Your task to perform on an android device: turn off translation in the chrome app Image 0: 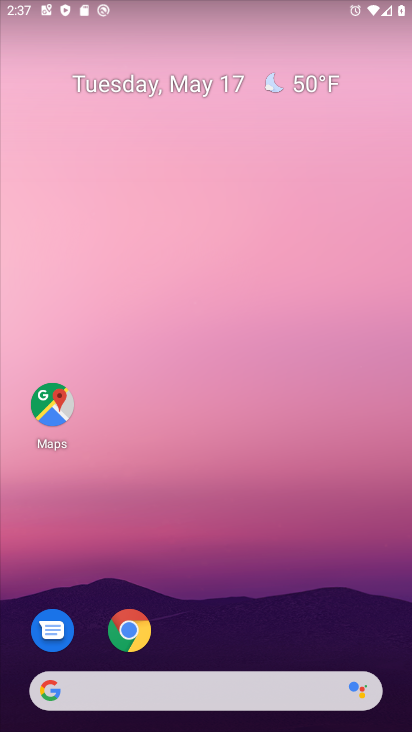
Step 0: click (130, 636)
Your task to perform on an android device: turn off translation in the chrome app Image 1: 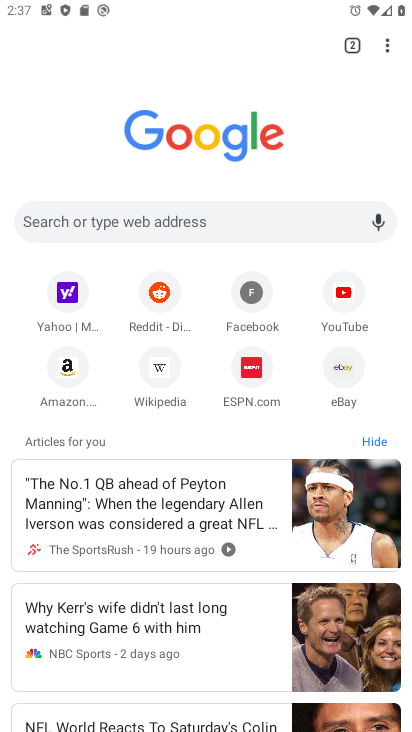
Step 1: click (393, 42)
Your task to perform on an android device: turn off translation in the chrome app Image 2: 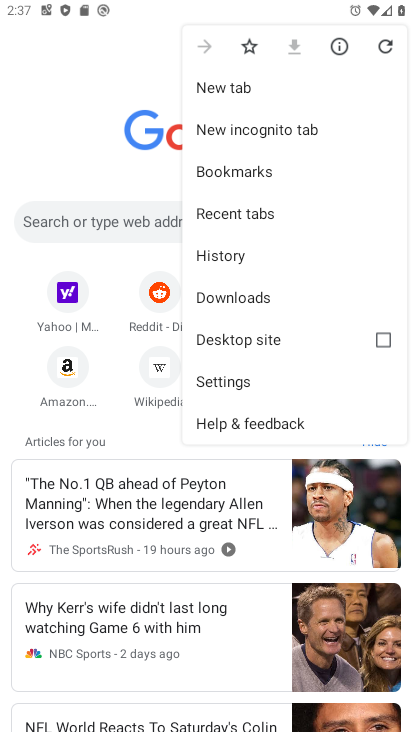
Step 2: click (228, 383)
Your task to perform on an android device: turn off translation in the chrome app Image 3: 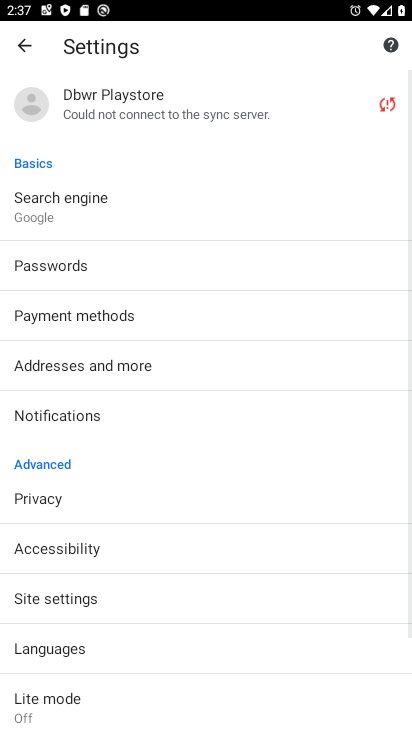
Step 3: click (45, 650)
Your task to perform on an android device: turn off translation in the chrome app Image 4: 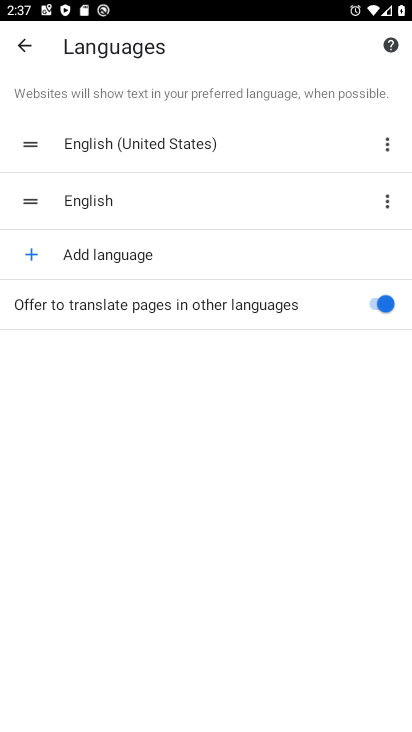
Step 4: click (373, 302)
Your task to perform on an android device: turn off translation in the chrome app Image 5: 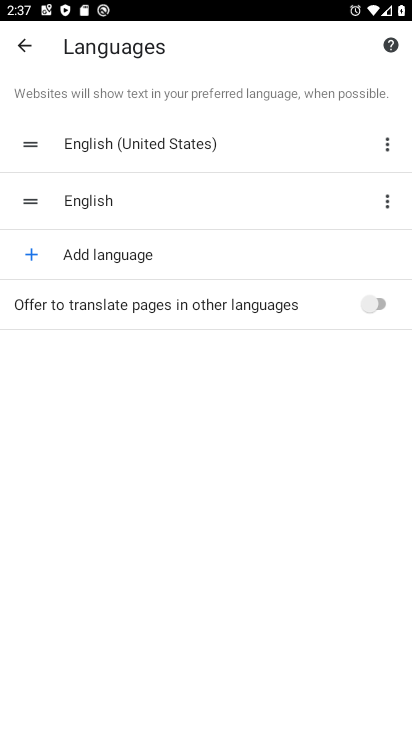
Step 5: task complete